Your task to perform on an android device: What is the recent news? Image 0: 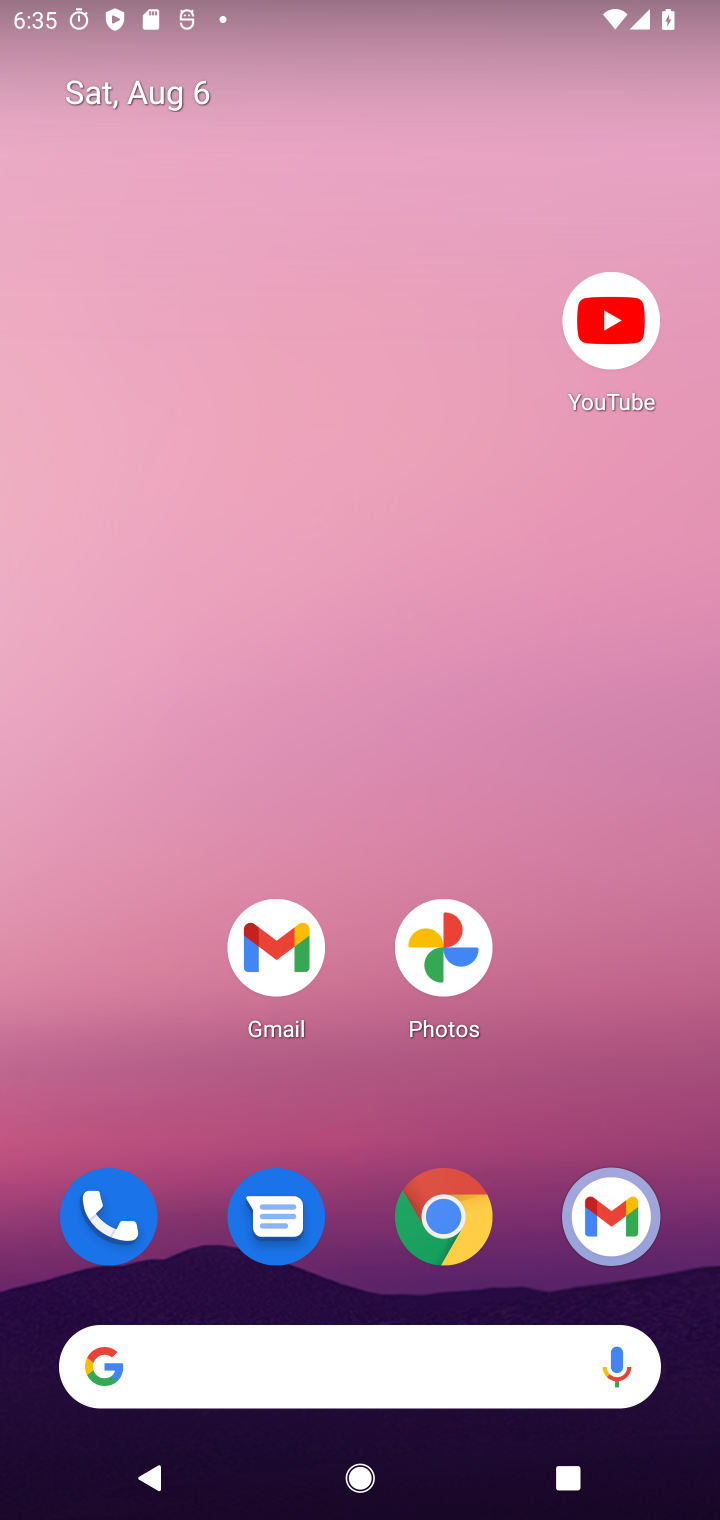
Step 0: drag from (619, 1040) to (207, 17)
Your task to perform on an android device: What is the recent news? Image 1: 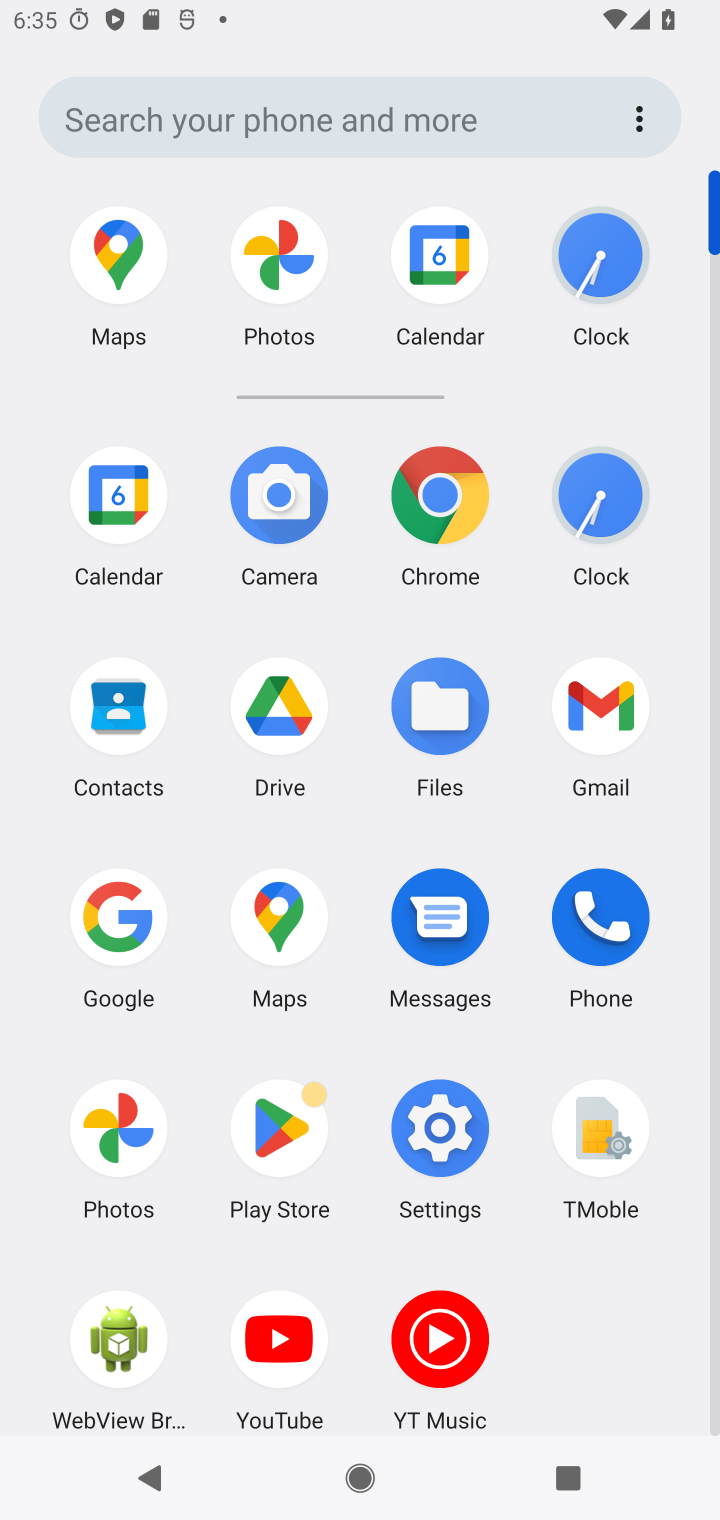
Step 1: click (433, 505)
Your task to perform on an android device: What is the recent news? Image 2: 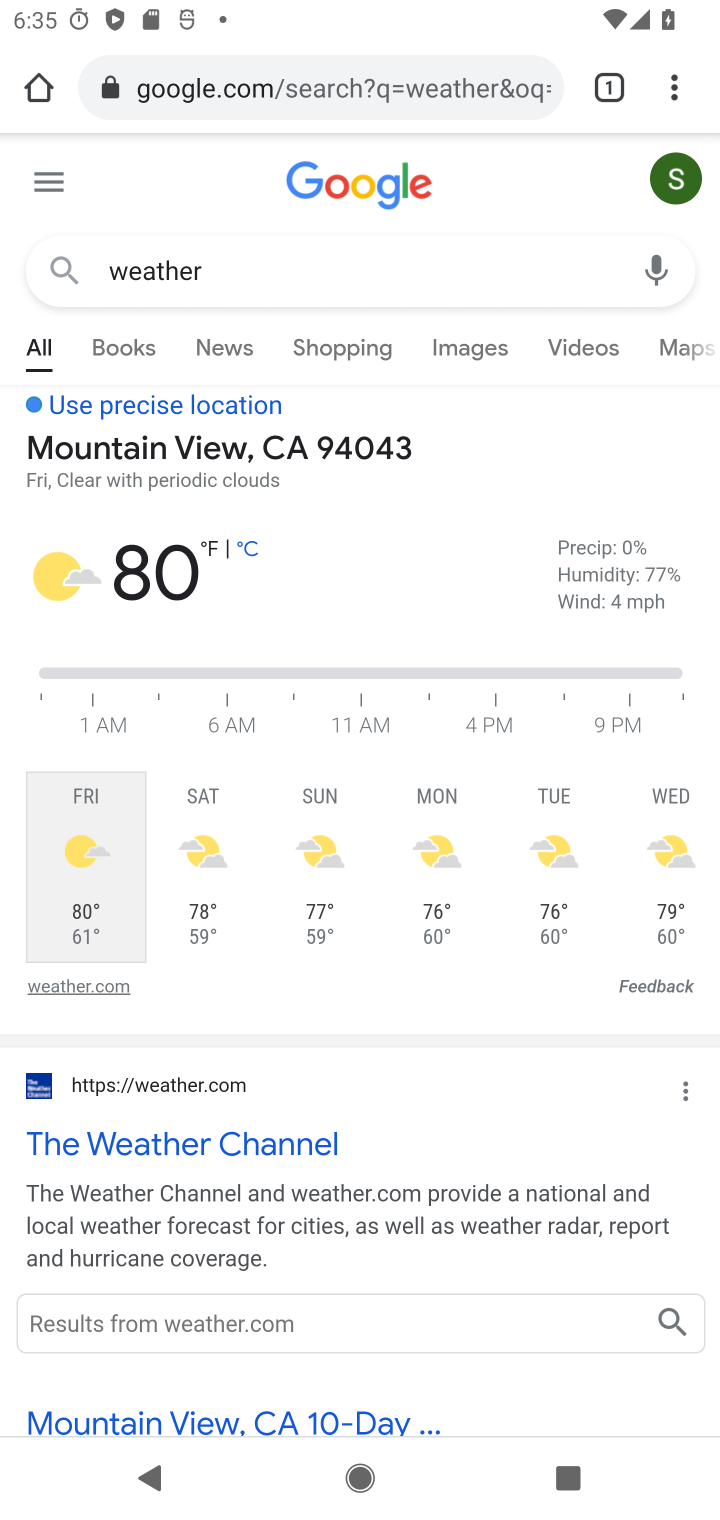
Step 2: click (414, 86)
Your task to perform on an android device: What is the recent news? Image 3: 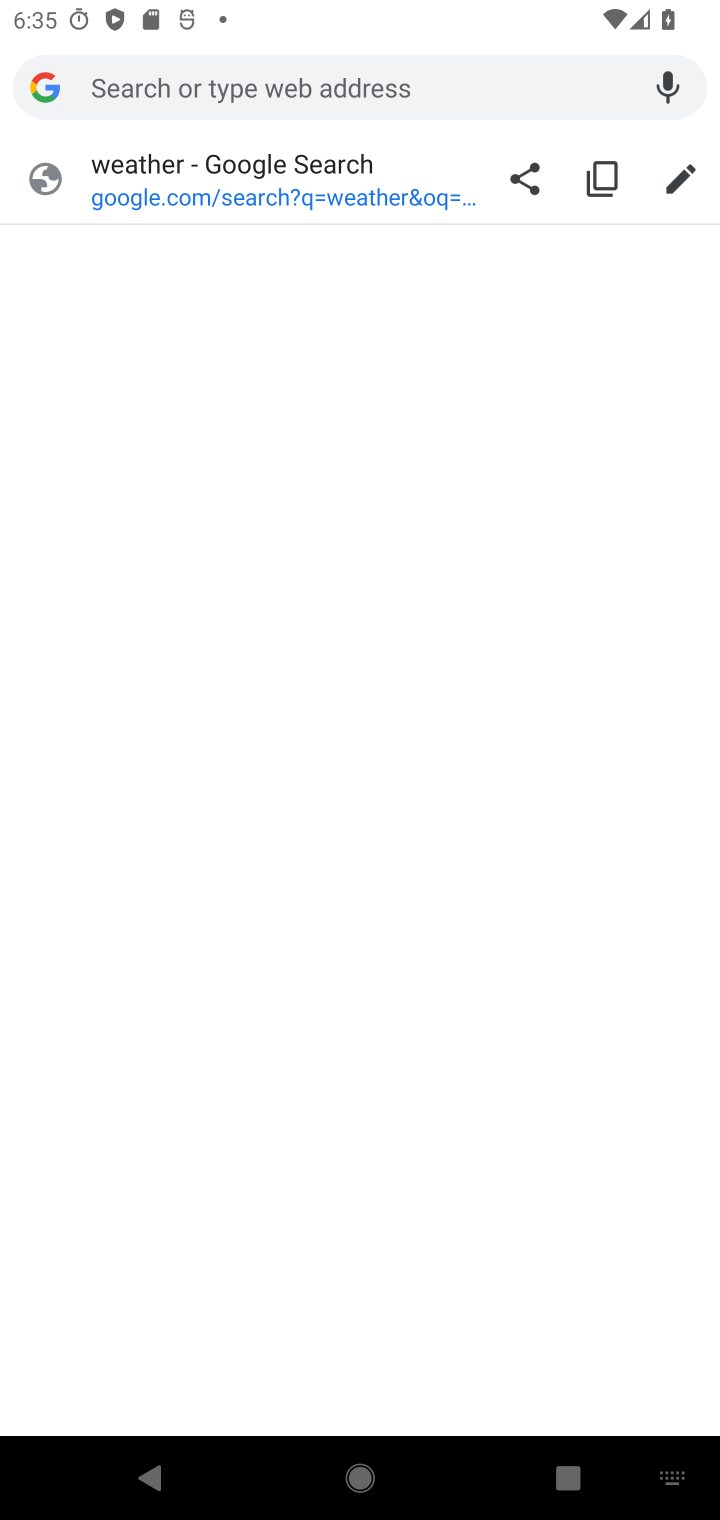
Step 3: type "news"
Your task to perform on an android device: What is the recent news? Image 4: 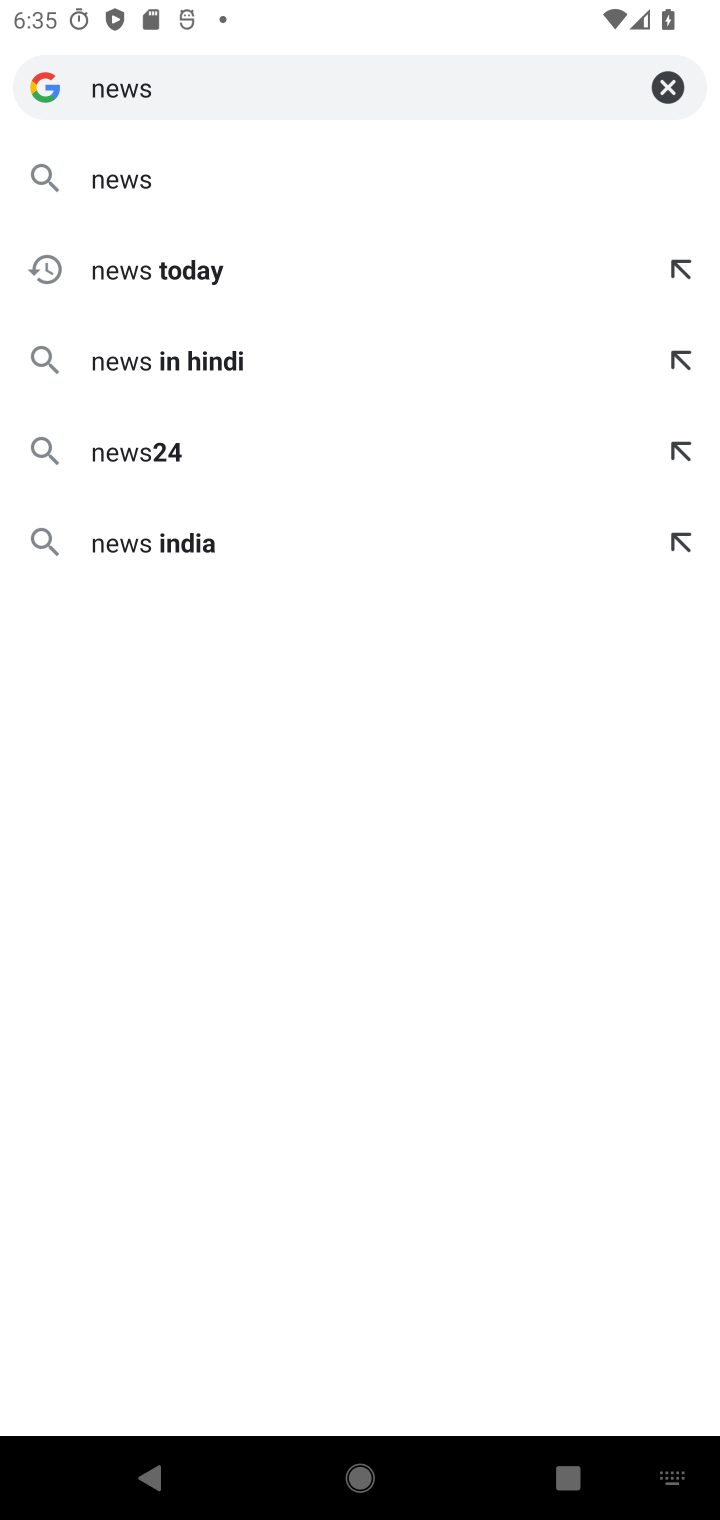
Step 4: click (216, 198)
Your task to perform on an android device: What is the recent news? Image 5: 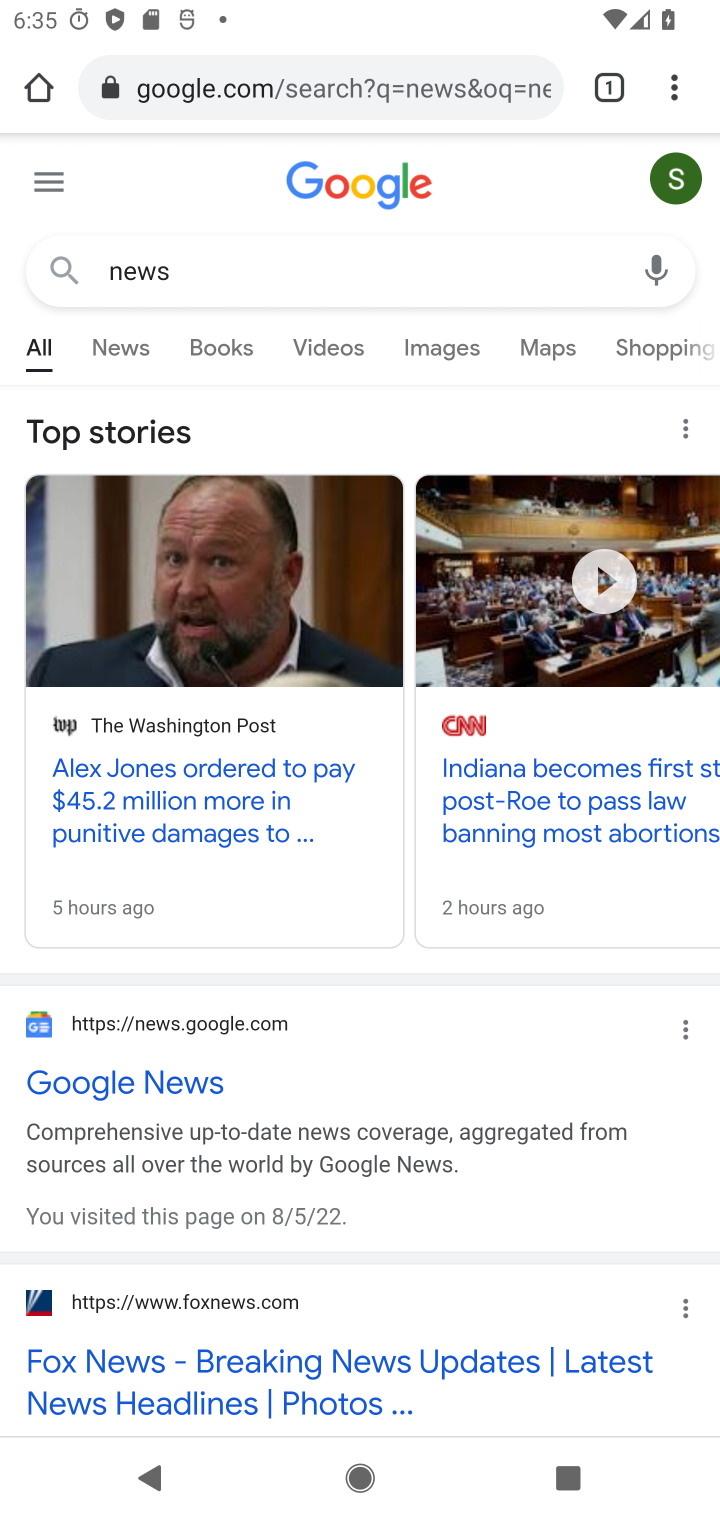
Step 5: click (179, 1081)
Your task to perform on an android device: What is the recent news? Image 6: 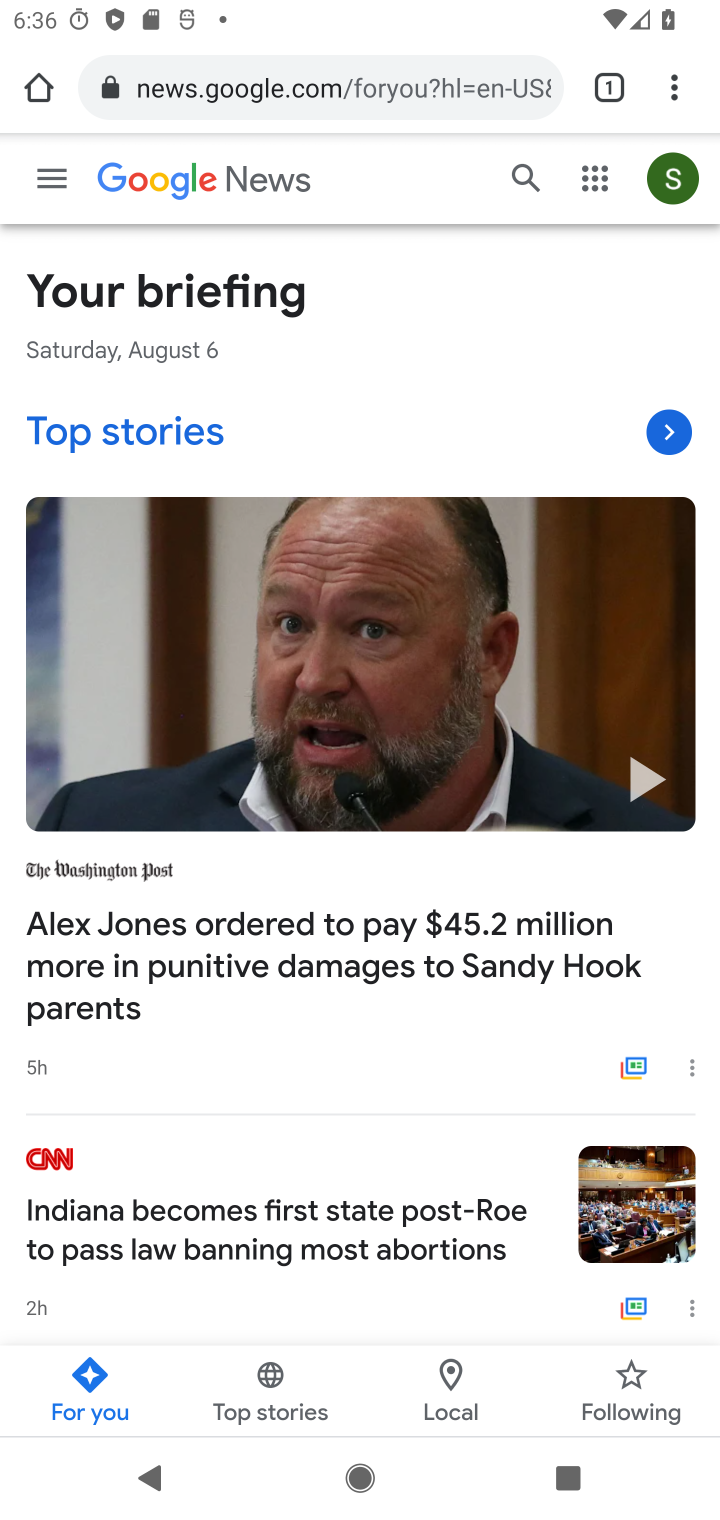
Step 6: task complete